Your task to perform on an android device: Open Google Maps and go to "Timeline" Image 0: 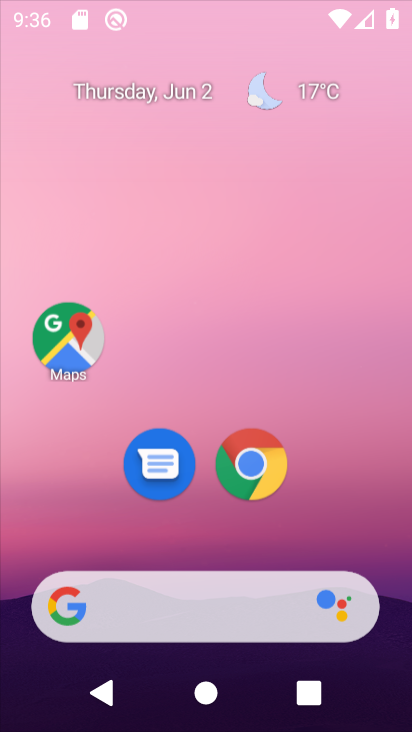
Step 0: drag from (307, 318) to (304, 221)
Your task to perform on an android device: Open Google Maps and go to "Timeline" Image 1: 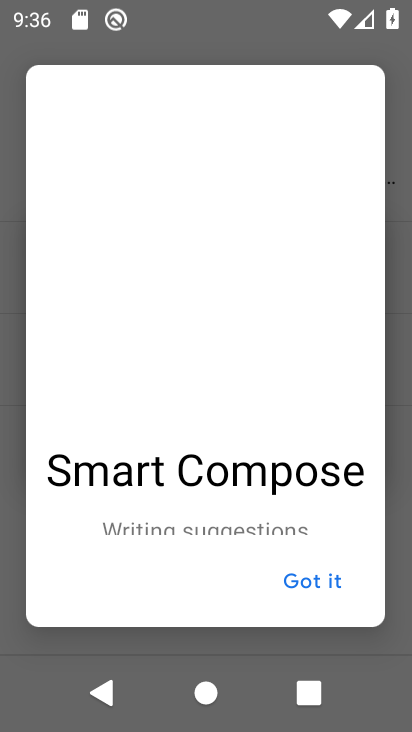
Step 1: click (310, 578)
Your task to perform on an android device: Open Google Maps and go to "Timeline" Image 2: 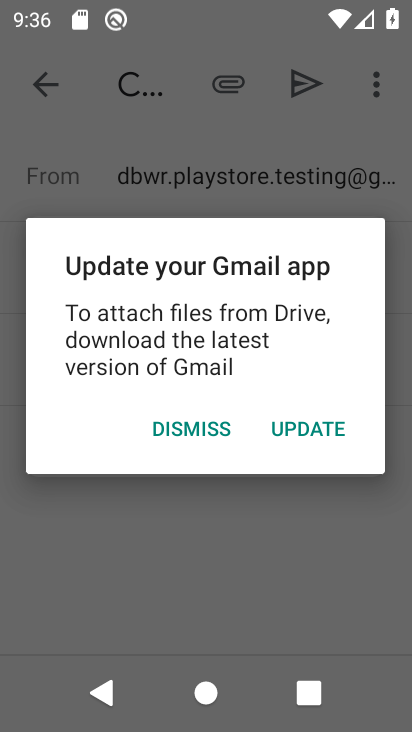
Step 2: press home button
Your task to perform on an android device: Open Google Maps and go to "Timeline" Image 3: 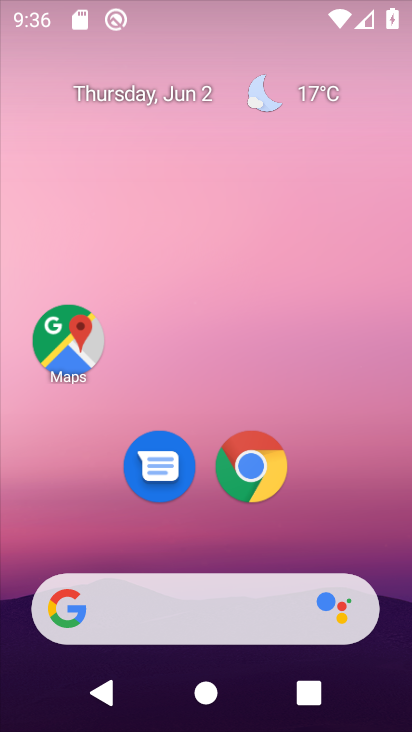
Step 3: drag from (212, 502) to (186, 257)
Your task to perform on an android device: Open Google Maps and go to "Timeline" Image 4: 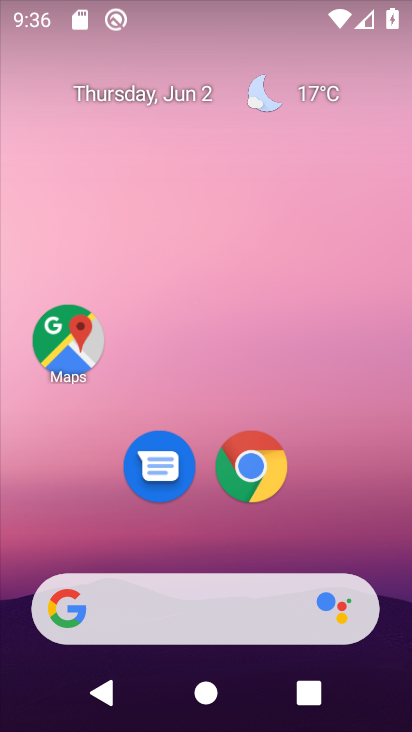
Step 4: click (53, 343)
Your task to perform on an android device: Open Google Maps and go to "Timeline" Image 5: 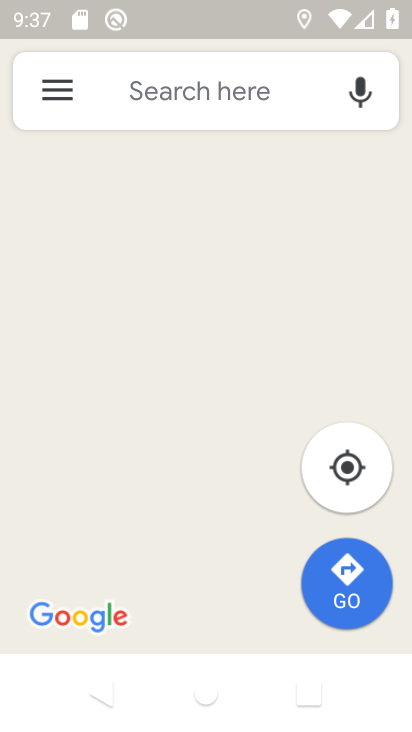
Step 5: click (40, 84)
Your task to perform on an android device: Open Google Maps and go to "Timeline" Image 6: 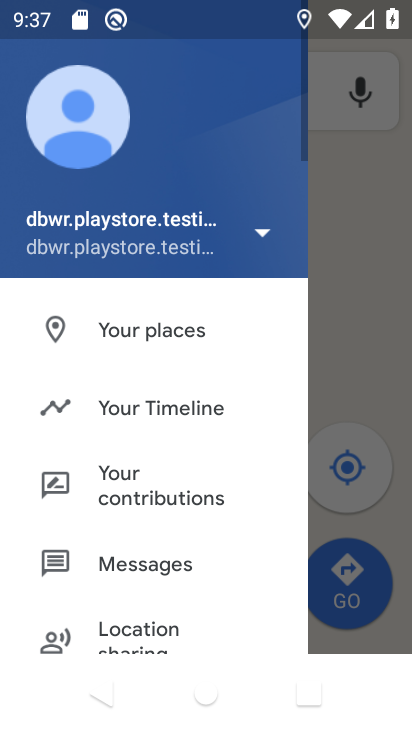
Step 6: click (59, 78)
Your task to perform on an android device: Open Google Maps and go to "Timeline" Image 7: 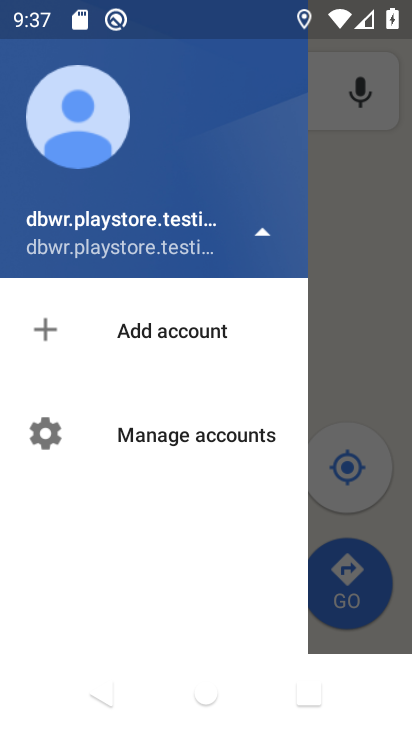
Step 7: click (178, 407)
Your task to perform on an android device: Open Google Maps and go to "Timeline" Image 8: 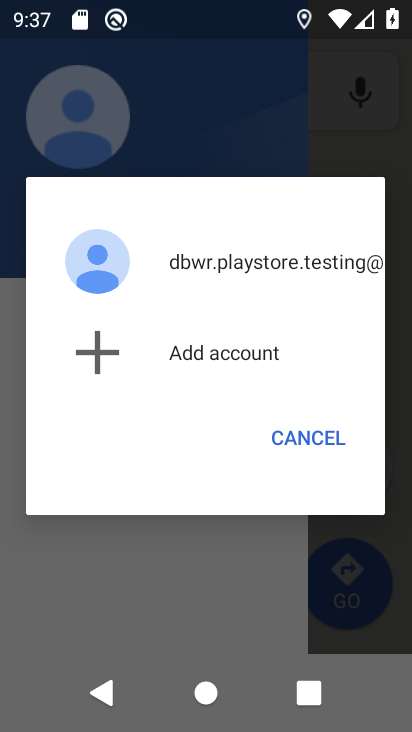
Step 8: click (342, 178)
Your task to perform on an android device: Open Google Maps and go to "Timeline" Image 9: 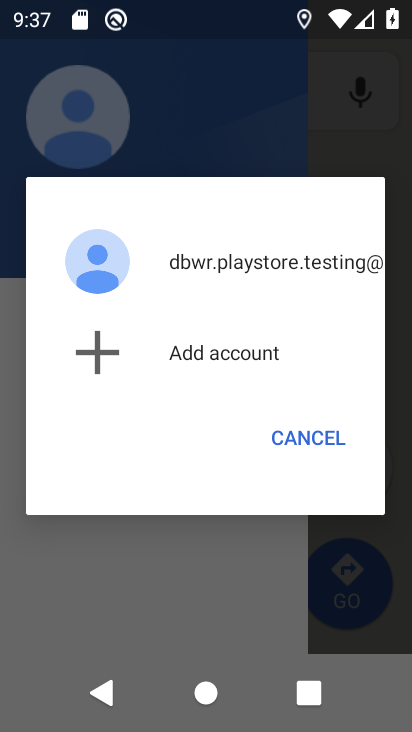
Step 9: click (309, 445)
Your task to perform on an android device: Open Google Maps and go to "Timeline" Image 10: 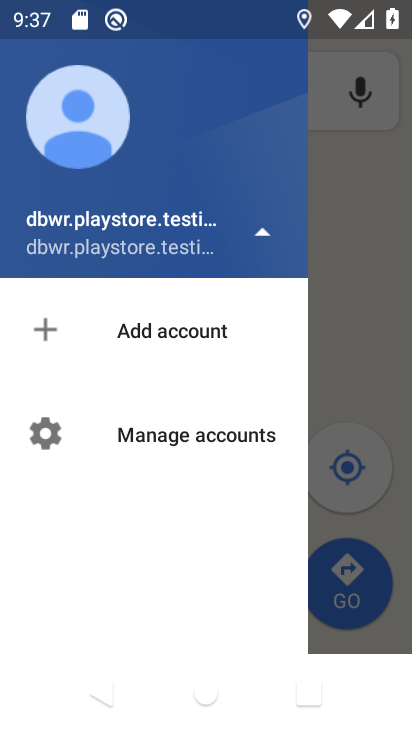
Step 10: click (334, 423)
Your task to perform on an android device: Open Google Maps and go to "Timeline" Image 11: 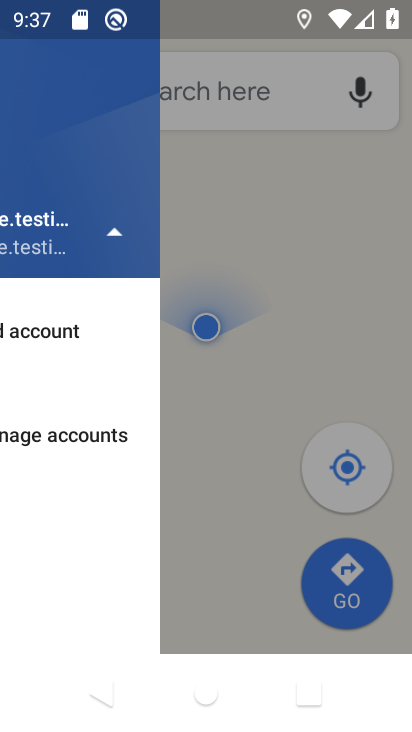
Step 11: click (358, 358)
Your task to perform on an android device: Open Google Maps and go to "Timeline" Image 12: 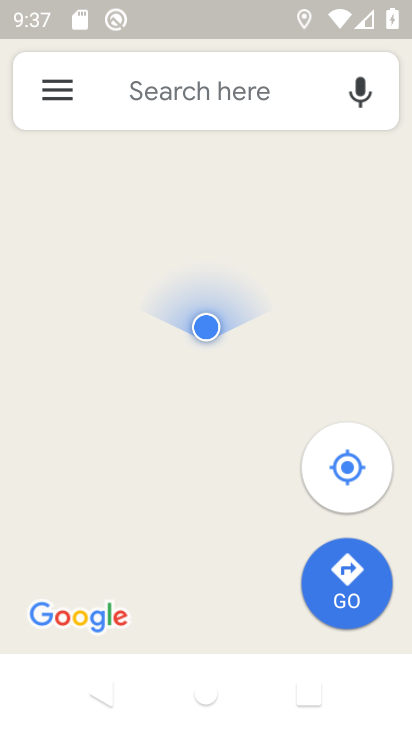
Step 12: click (53, 101)
Your task to perform on an android device: Open Google Maps and go to "Timeline" Image 13: 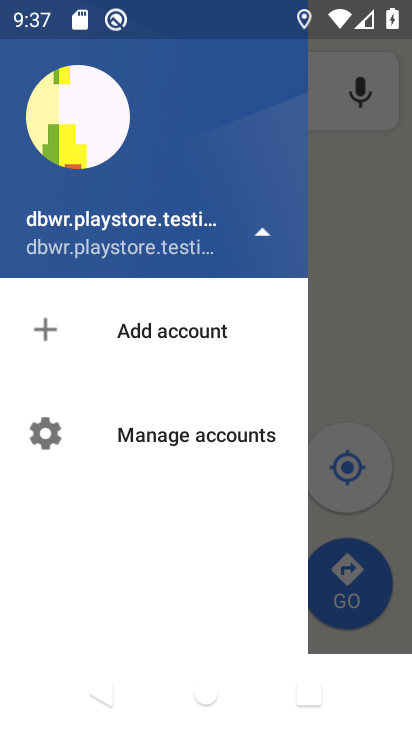
Step 13: click (104, 437)
Your task to perform on an android device: Open Google Maps and go to "Timeline" Image 14: 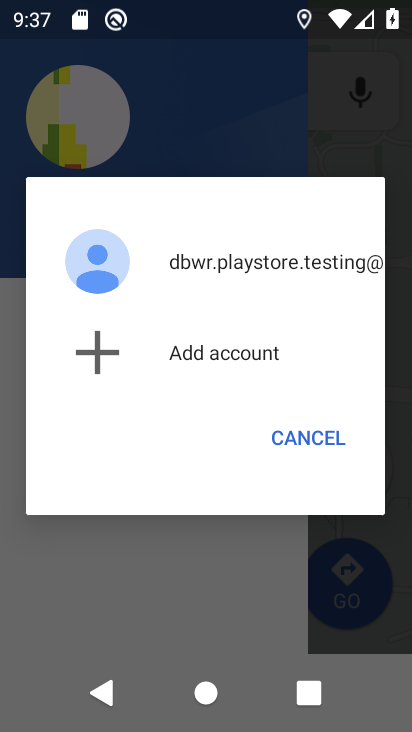
Step 14: click (94, 427)
Your task to perform on an android device: Open Google Maps and go to "Timeline" Image 15: 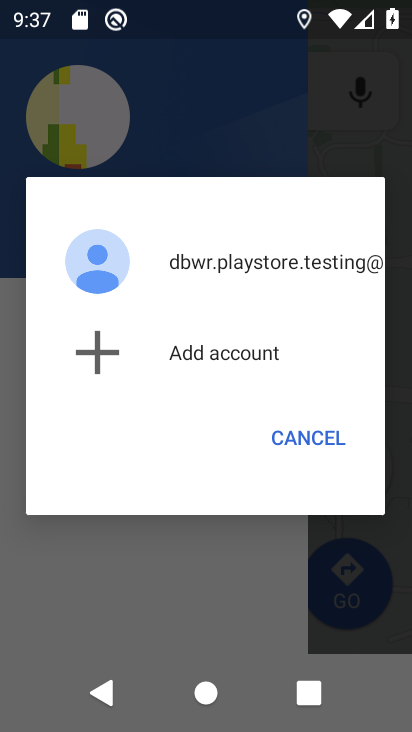
Step 15: drag from (335, 424) to (228, 254)
Your task to perform on an android device: Open Google Maps and go to "Timeline" Image 16: 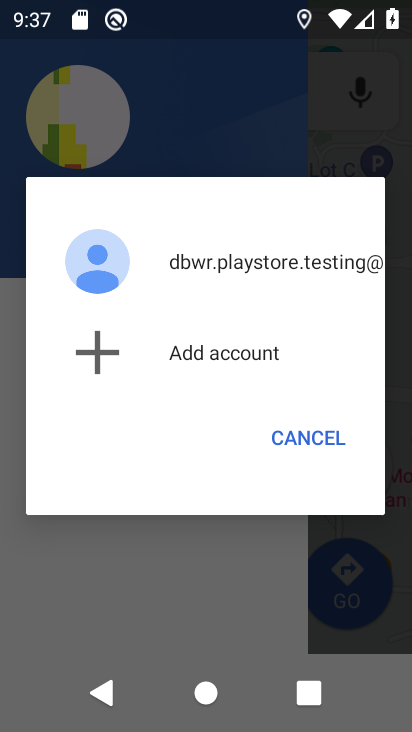
Step 16: click (198, 260)
Your task to perform on an android device: Open Google Maps and go to "Timeline" Image 17: 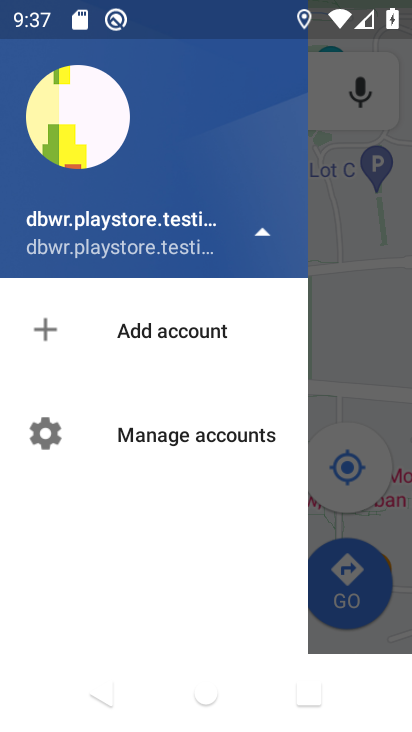
Step 17: click (243, 230)
Your task to perform on an android device: Open Google Maps and go to "Timeline" Image 18: 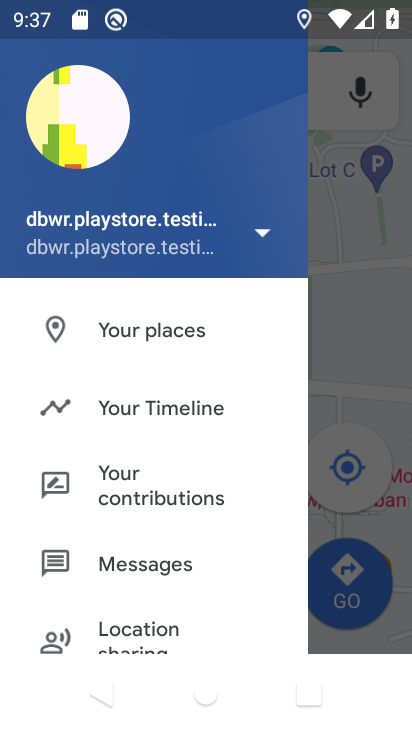
Step 18: click (130, 401)
Your task to perform on an android device: Open Google Maps and go to "Timeline" Image 19: 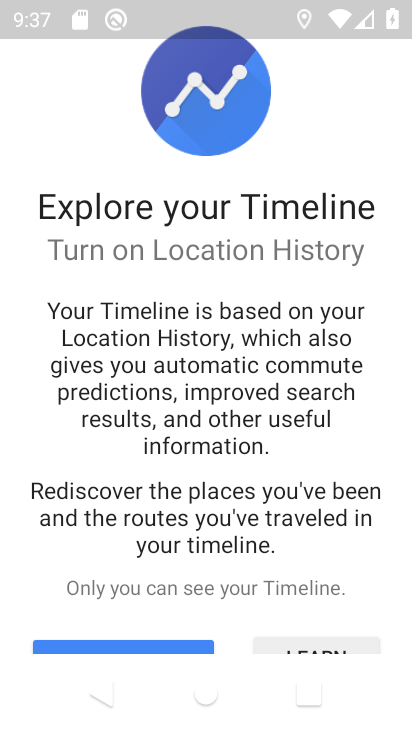
Step 19: drag from (319, 571) to (318, 288)
Your task to perform on an android device: Open Google Maps and go to "Timeline" Image 20: 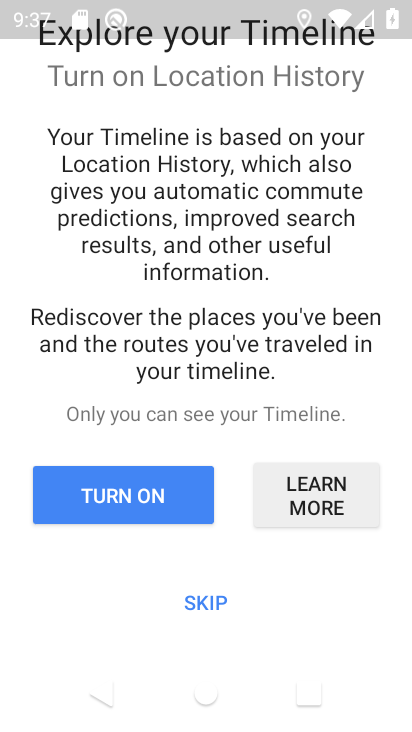
Step 20: click (196, 601)
Your task to perform on an android device: Open Google Maps and go to "Timeline" Image 21: 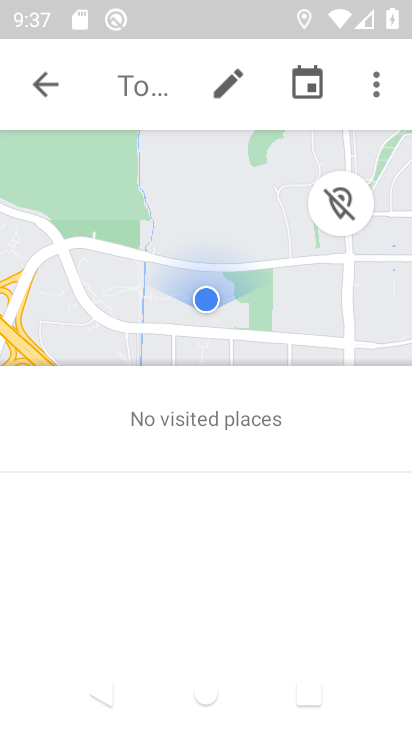
Step 21: press back button
Your task to perform on an android device: Open Google Maps and go to "Timeline" Image 22: 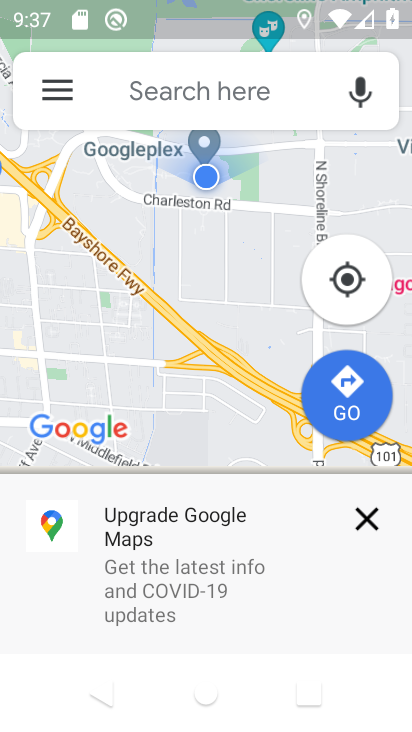
Step 22: click (361, 518)
Your task to perform on an android device: Open Google Maps and go to "Timeline" Image 23: 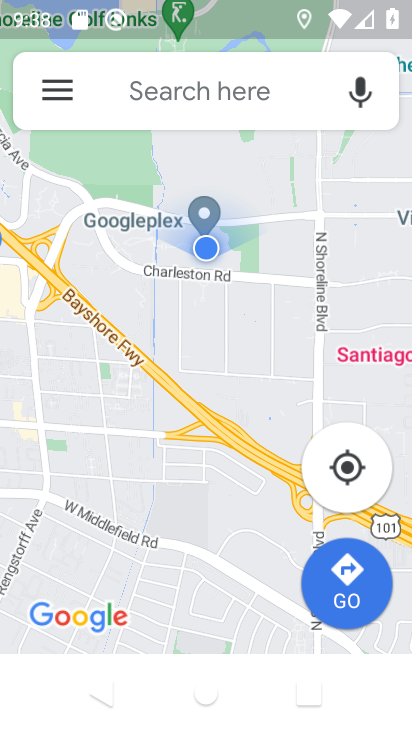
Step 23: click (59, 89)
Your task to perform on an android device: Open Google Maps and go to "Timeline" Image 24: 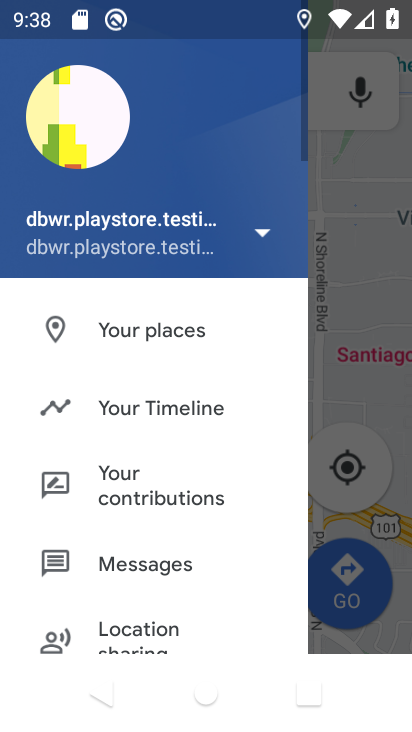
Step 24: click (169, 407)
Your task to perform on an android device: Open Google Maps and go to "Timeline" Image 25: 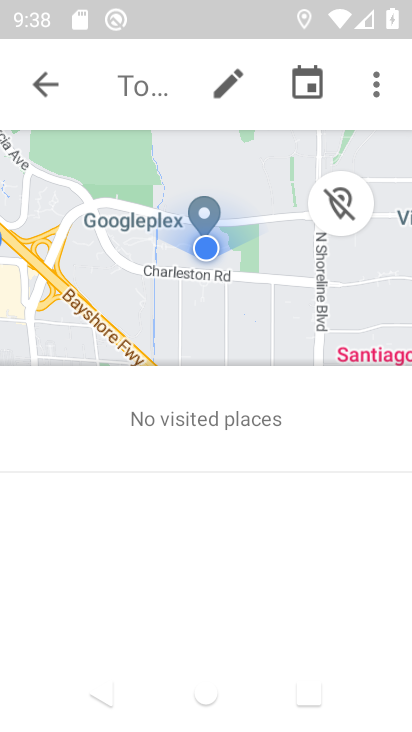
Step 25: task complete